Your task to perform on an android device: Go to eBay Image 0: 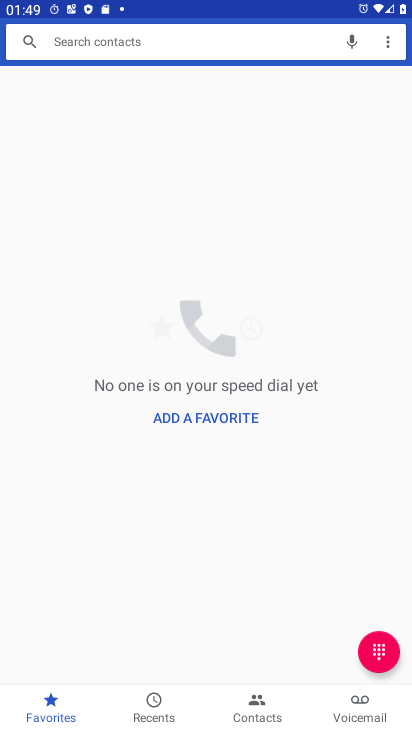
Step 0: press home button
Your task to perform on an android device: Go to eBay Image 1: 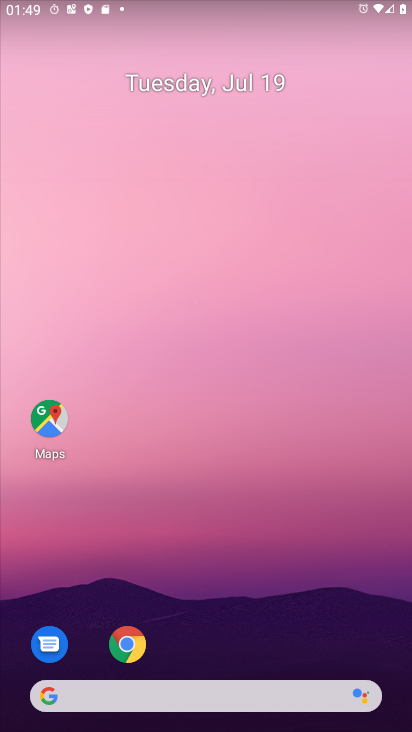
Step 1: drag from (227, 713) to (226, 205)
Your task to perform on an android device: Go to eBay Image 2: 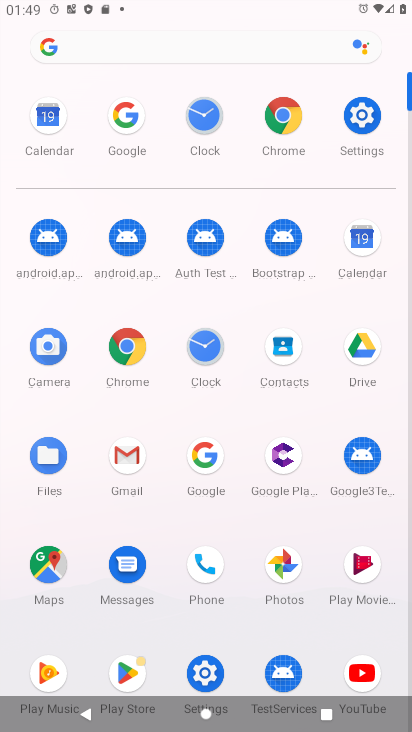
Step 2: click (126, 347)
Your task to perform on an android device: Go to eBay Image 3: 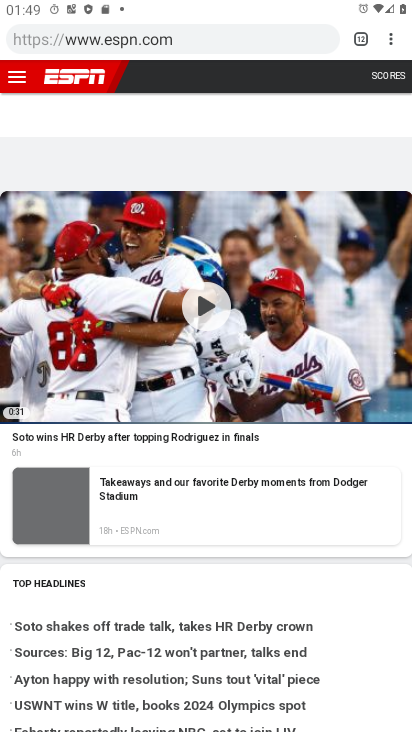
Step 3: click (390, 41)
Your task to perform on an android device: Go to eBay Image 4: 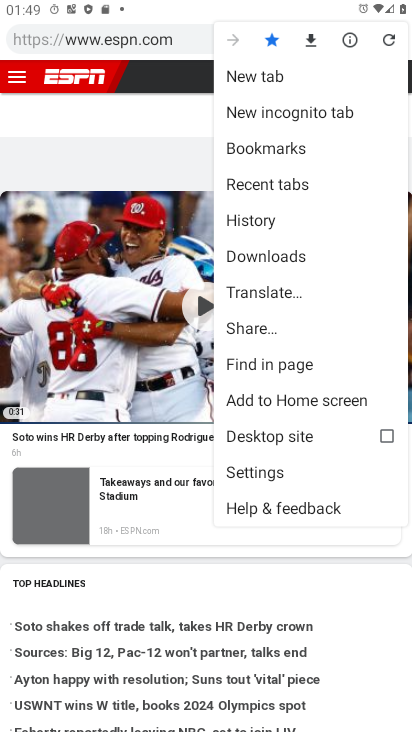
Step 4: click (261, 73)
Your task to perform on an android device: Go to eBay Image 5: 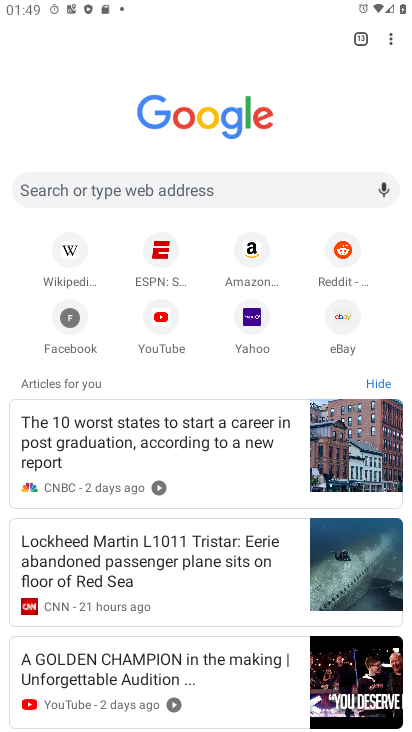
Step 5: click (345, 311)
Your task to perform on an android device: Go to eBay Image 6: 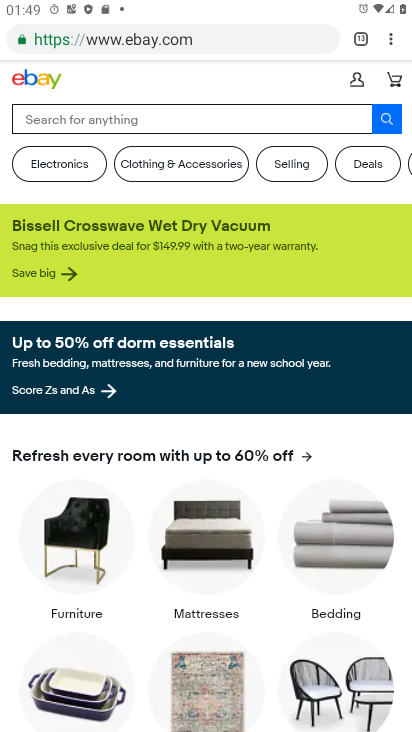
Step 6: task complete